Your task to perform on an android device: turn off improve location accuracy Image 0: 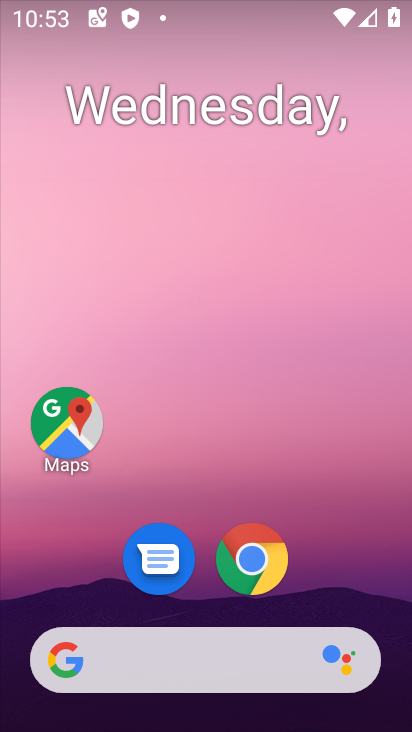
Step 0: drag from (378, 596) to (322, 26)
Your task to perform on an android device: turn off improve location accuracy Image 1: 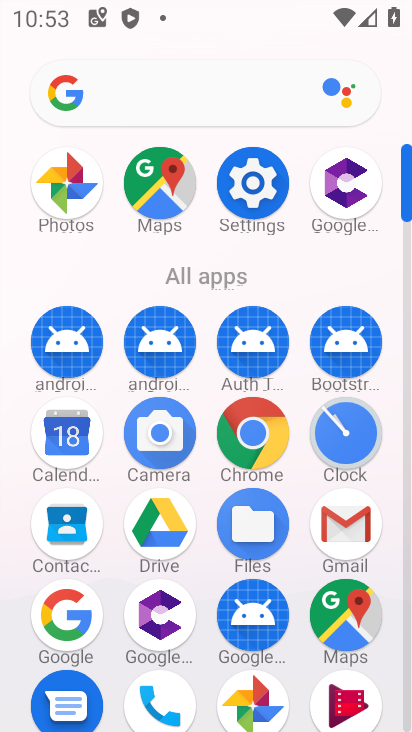
Step 1: click (255, 200)
Your task to perform on an android device: turn off improve location accuracy Image 2: 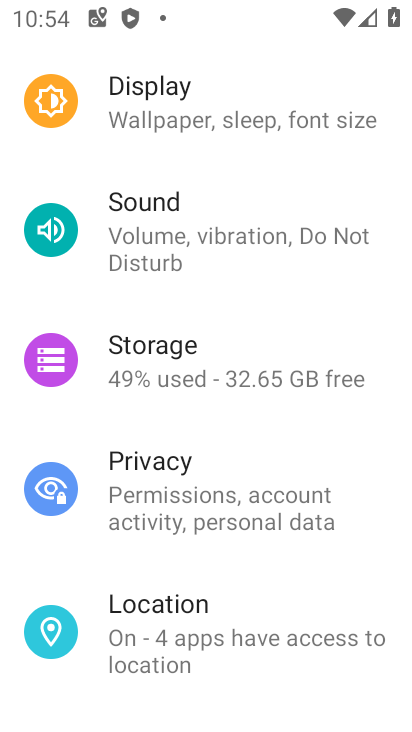
Step 2: click (125, 649)
Your task to perform on an android device: turn off improve location accuracy Image 3: 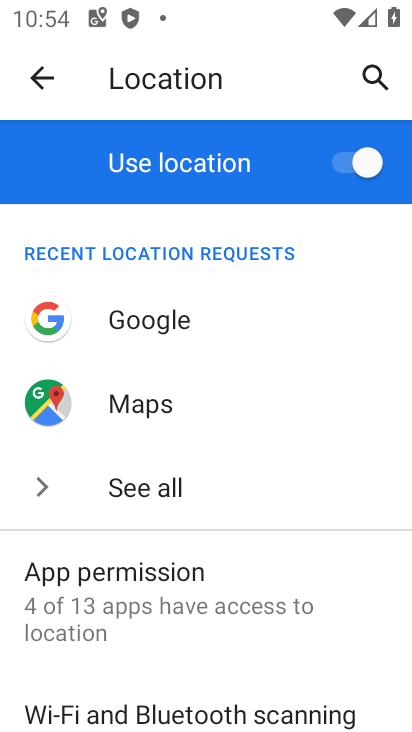
Step 3: drag from (215, 714) to (272, 308)
Your task to perform on an android device: turn off improve location accuracy Image 4: 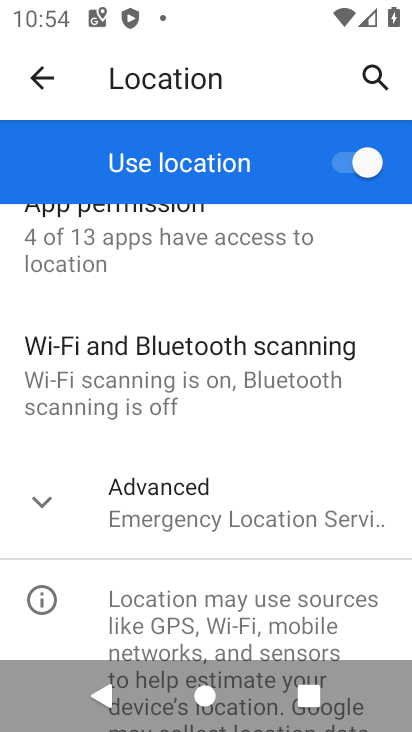
Step 4: click (236, 501)
Your task to perform on an android device: turn off improve location accuracy Image 5: 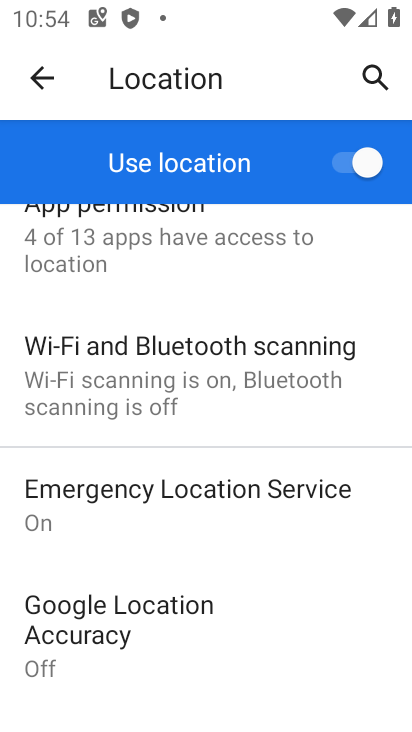
Step 5: click (259, 620)
Your task to perform on an android device: turn off improve location accuracy Image 6: 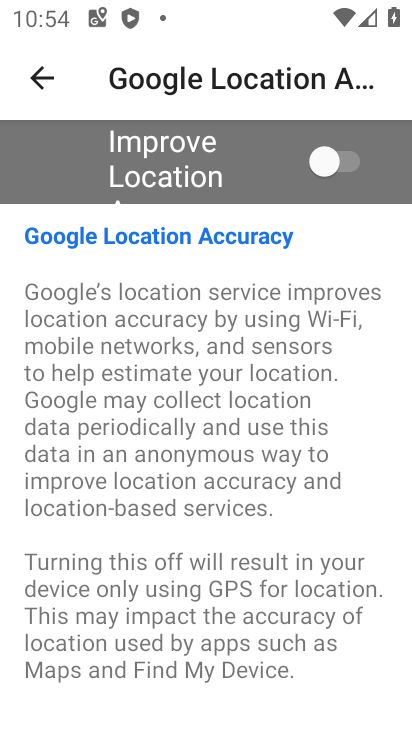
Step 6: task complete